Your task to perform on an android device: Open Maps and search for coffee Image 0: 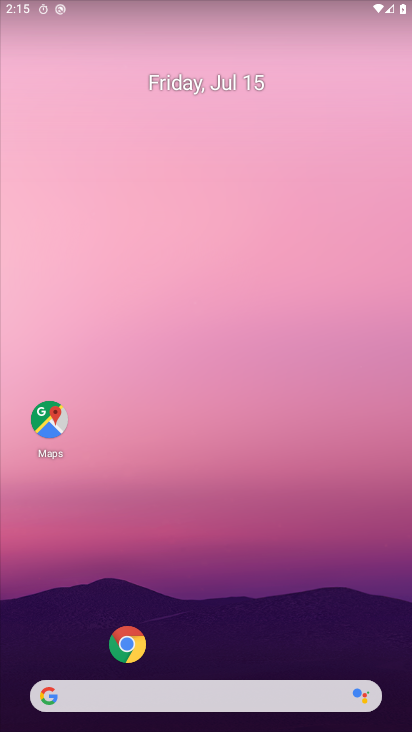
Step 0: drag from (20, 430) to (52, 412)
Your task to perform on an android device: Open Maps and search for coffee Image 1: 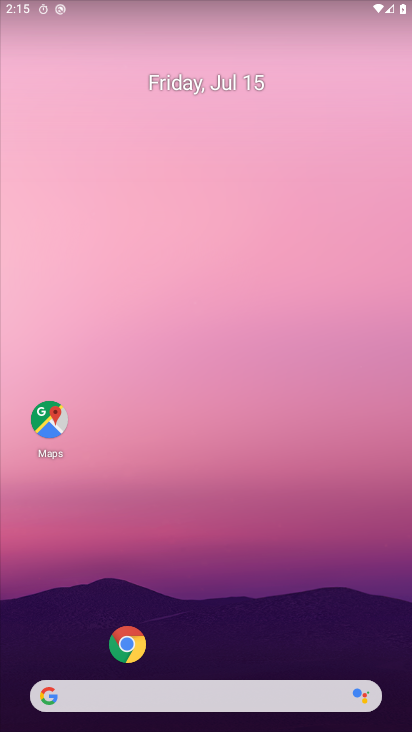
Step 1: click (56, 429)
Your task to perform on an android device: Open Maps and search for coffee Image 2: 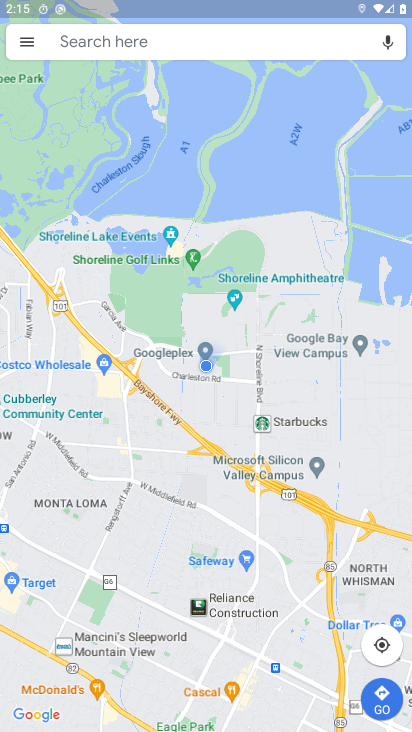
Step 2: click (70, 41)
Your task to perform on an android device: Open Maps and search for coffee Image 3: 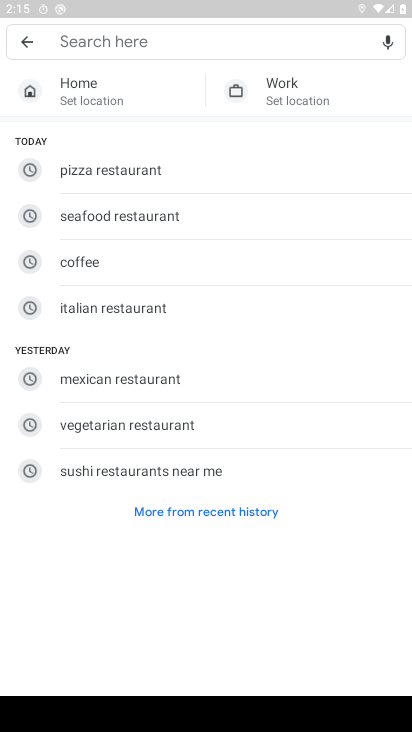
Step 3: type "coffee"
Your task to perform on an android device: Open Maps and search for coffee Image 4: 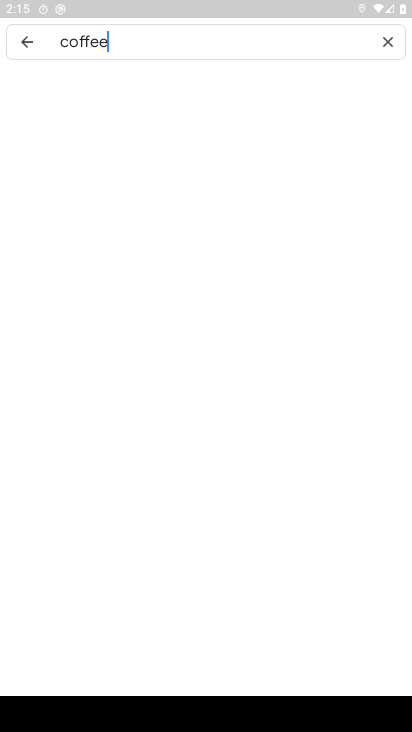
Step 4: type ""
Your task to perform on an android device: Open Maps and search for coffee Image 5: 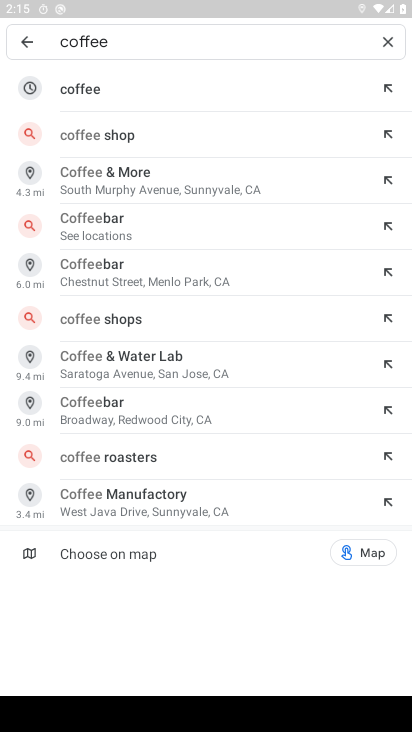
Step 5: click (80, 89)
Your task to perform on an android device: Open Maps and search for coffee Image 6: 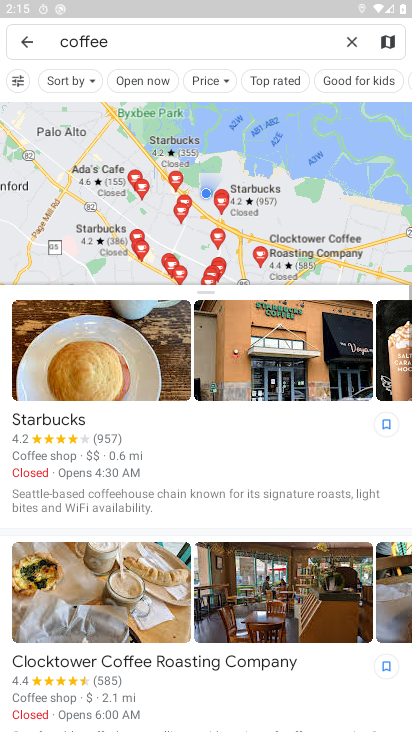
Step 6: task complete